Your task to perform on an android device: choose inbox layout in the gmail app Image 0: 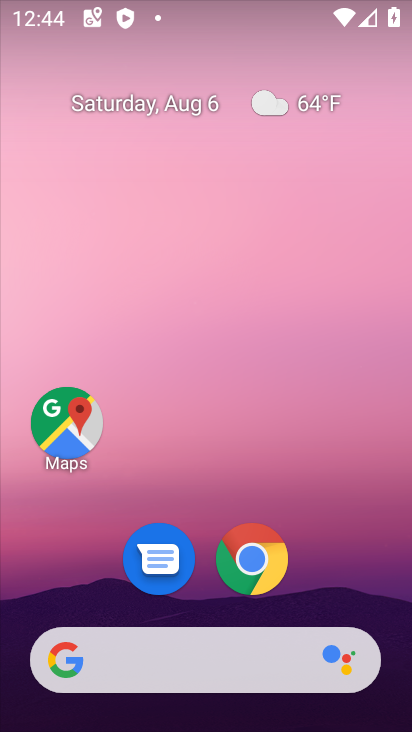
Step 0: drag from (196, 665) to (245, 126)
Your task to perform on an android device: choose inbox layout in the gmail app Image 1: 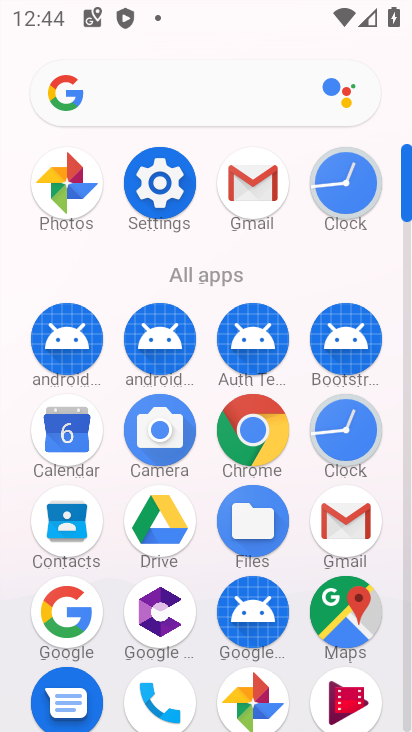
Step 1: click (253, 186)
Your task to perform on an android device: choose inbox layout in the gmail app Image 2: 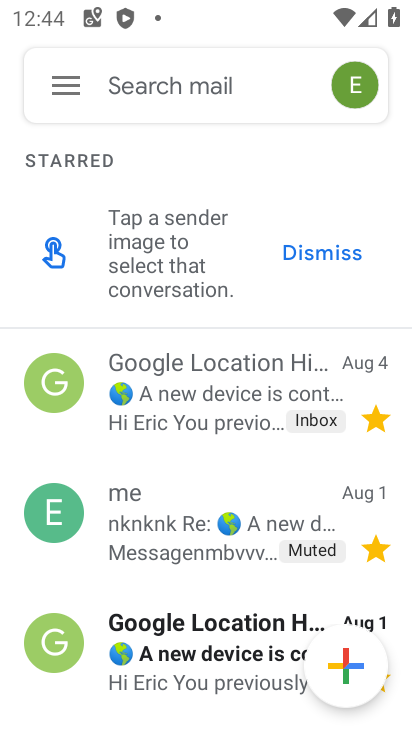
Step 2: click (61, 102)
Your task to perform on an android device: choose inbox layout in the gmail app Image 3: 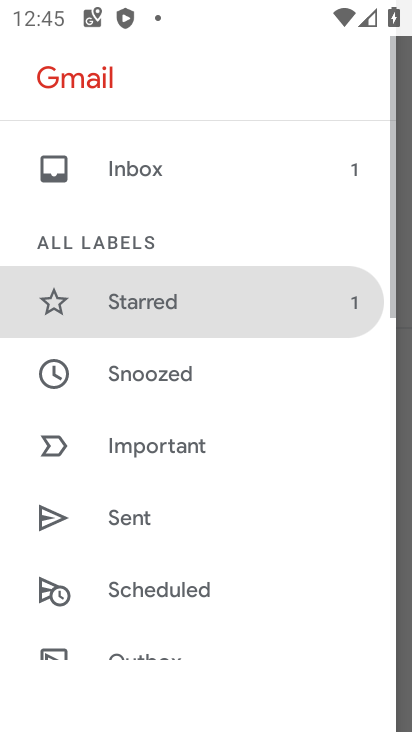
Step 3: drag from (207, 577) to (163, 124)
Your task to perform on an android device: choose inbox layout in the gmail app Image 4: 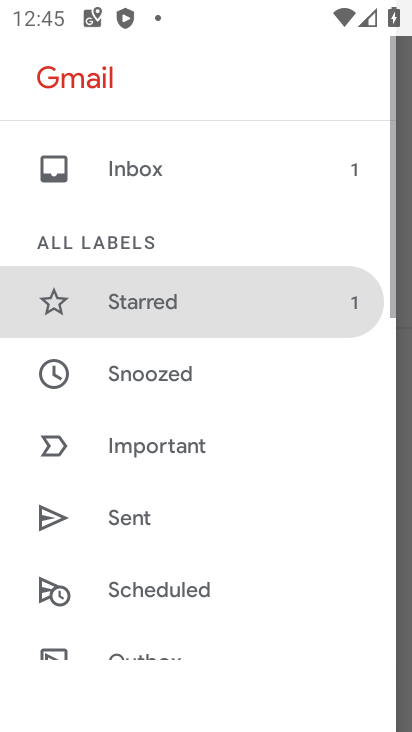
Step 4: drag from (165, 648) to (251, 40)
Your task to perform on an android device: choose inbox layout in the gmail app Image 5: 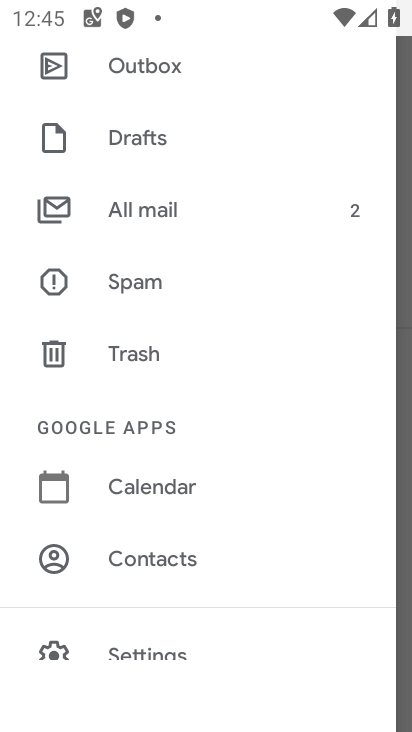
Step 5: drag from (230, 412) to (272, 2)
Your task to perform on an android device: choose inbox layout in the gmail app Image 6: 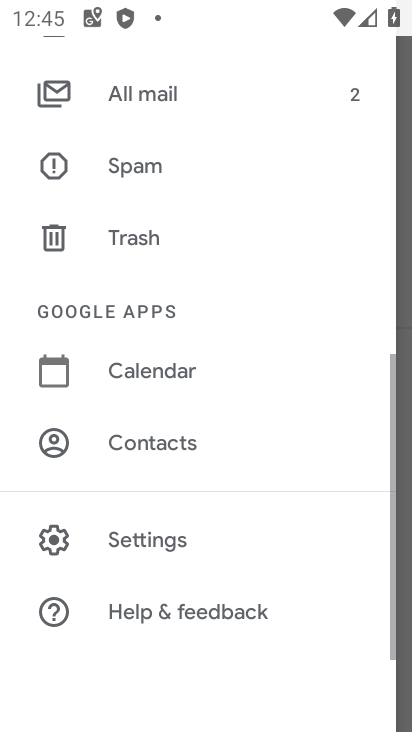
Step 6: click (207, 515)
Your task to perform on an android device: choose inbox layout in the gmail app Image 7: 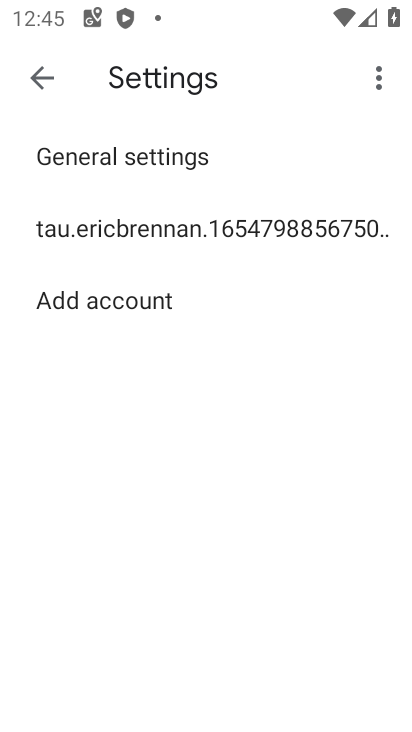
Step 7: click (125, 235)
Your task to perform on an android device: choose inbox layout in the gmail app Image 8: 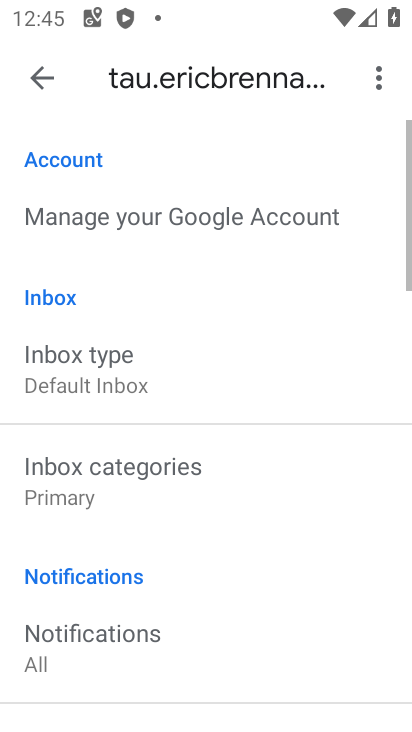
Step 8: click (72, 371)
Your task to perform on an android device: choose inbox layout in the gmail app Image 9: 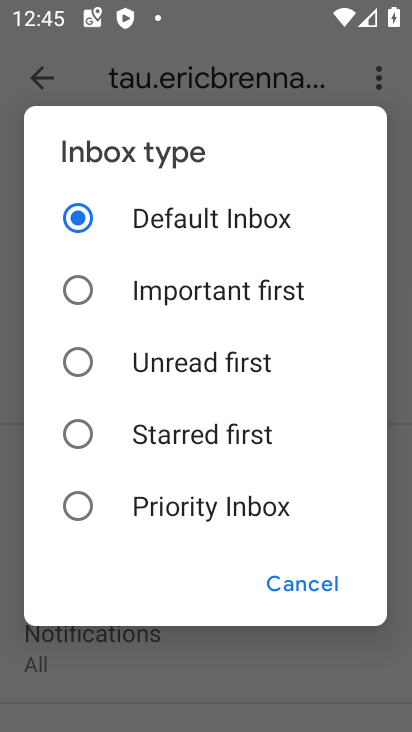
Step 9: click (235, 299)
Your task to perform on an android device: choose inbox layout in the gmail app Image 10: 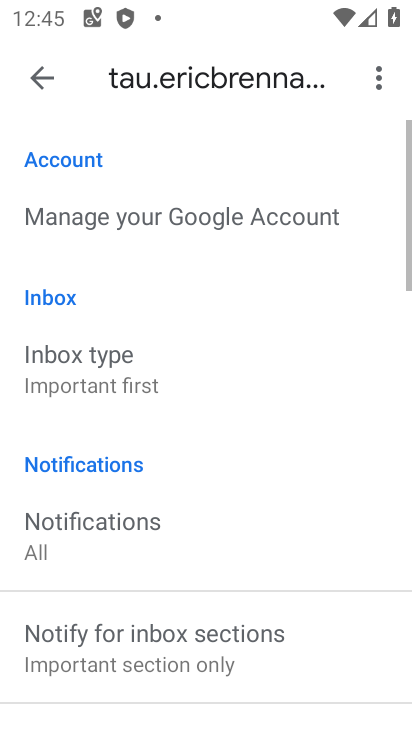
Step 10: task complete